Your task to perform on an android device: turn off notifications in google photos Image 0: 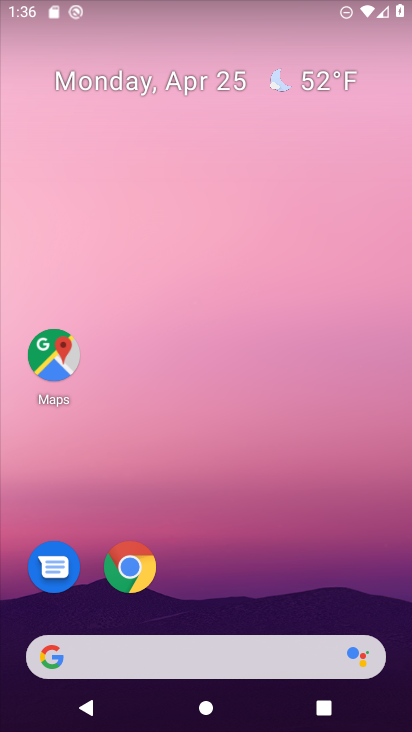
Step 0: drag from (291, 593) to (245, 39)
Your task to perform on an android device: turn off notifications in google photos Image 1: 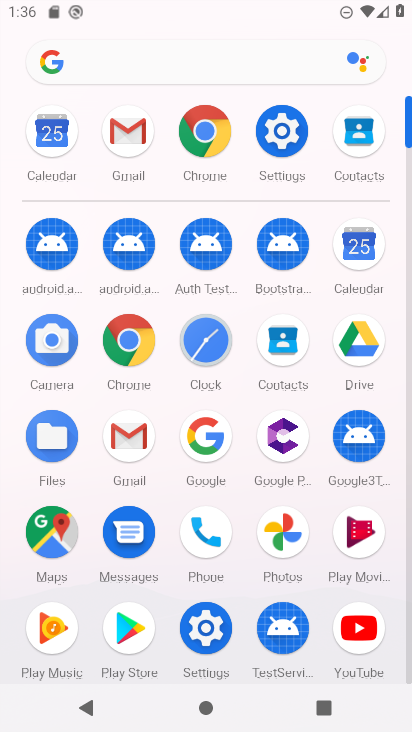
Step 1: click (280, 126)
Your task to perform on an android device: turn off notifications in google photos Image 2: 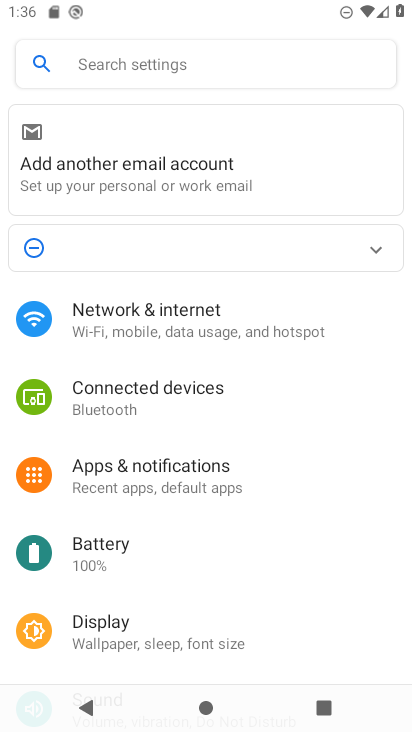
Step 2: click (204, 463)
Your task to perform on an android device: turn off notifications in google photos Image 3: 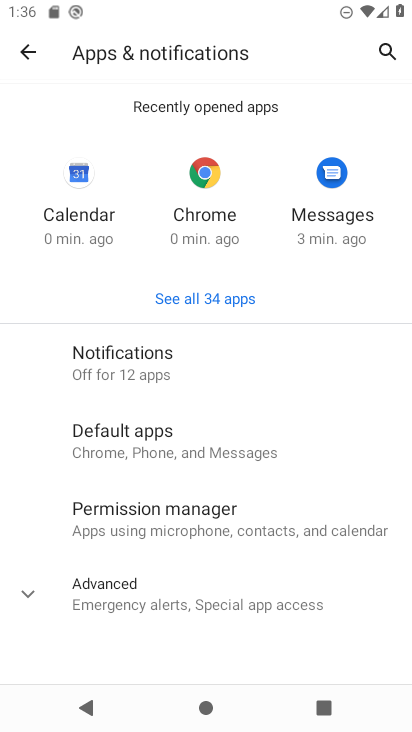
Step 3: click (222, 284)
Your task to perform on an android device: turn off notifications in google photos Image 4: 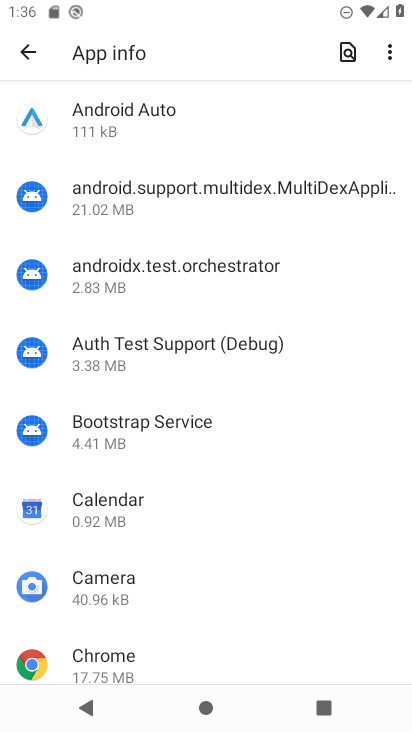
Step 4: drag from (255, 622) to (248, 36)
Your task to perform on an android device: turn off notifications in google photos Image 5: 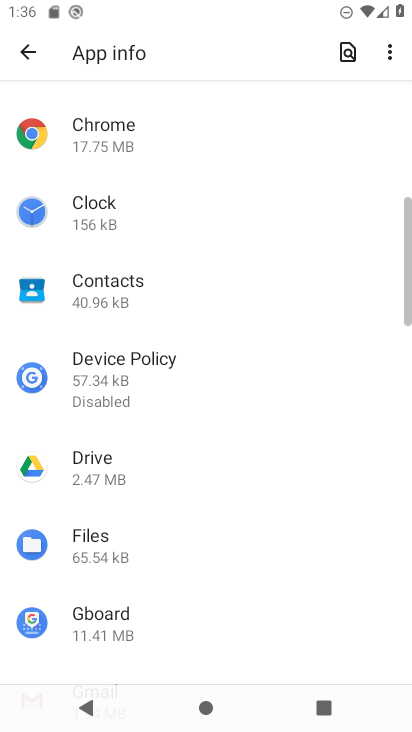
Step 5: drag from (221, 582) to (226, 156)
Your task to perform on an android device: turn off notifications in google photos Image 6: 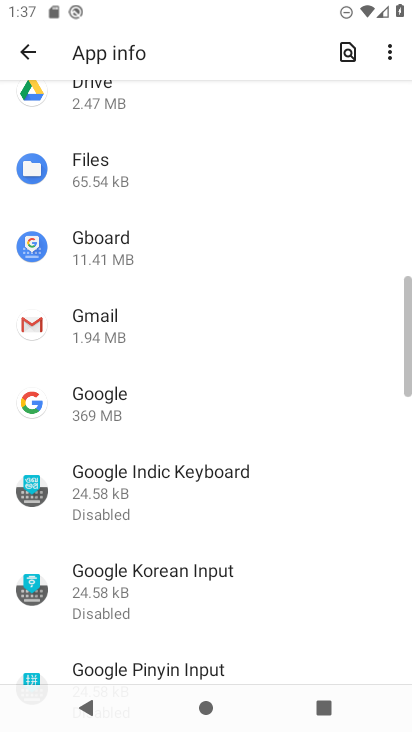
Step 6: drag from (224, 633) to (239, 83)
Your task to perform on an android device: turn off notifications in google photos Image 7: 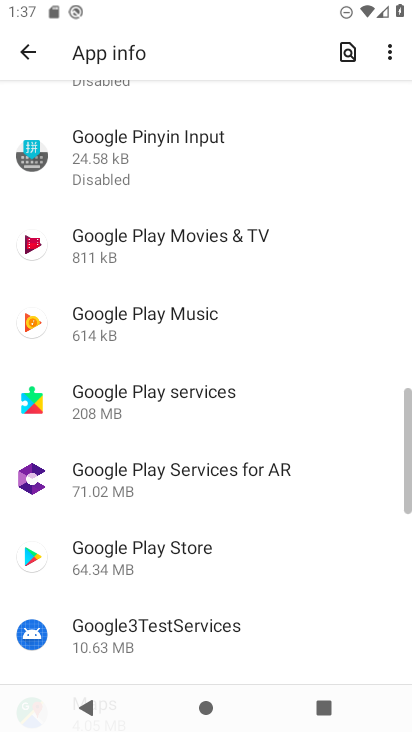
Step 7: drag from (273, 568) to (250, 63)
Your task to perform on an android device: turn off notifications in google photos Image 8: 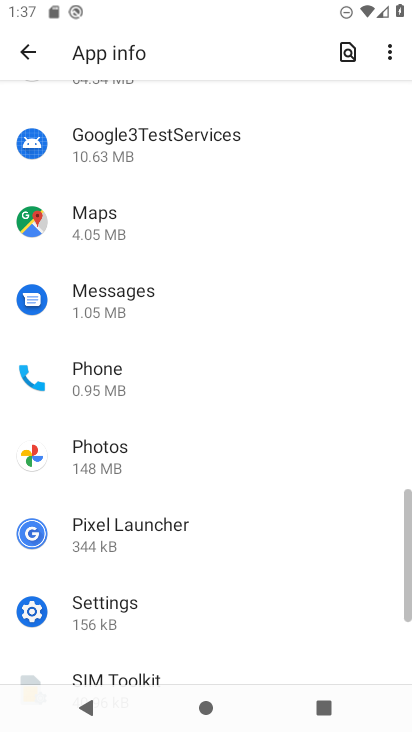
Step 8: click (164, 454)
Your task to perform on an android device: turn off notifications in google photos Image 9: 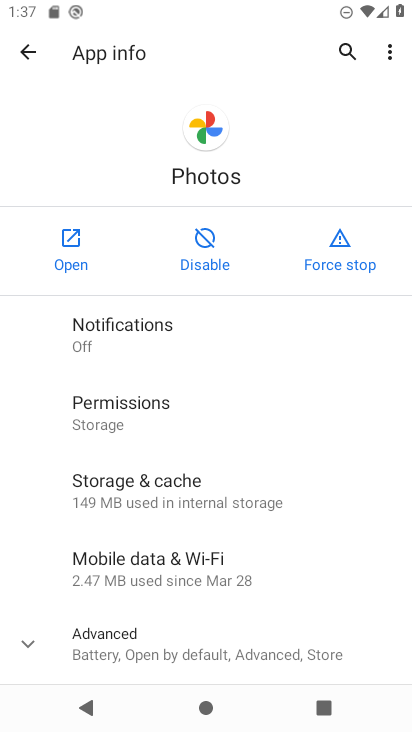
Step 9: click (152, 320)
Your task to perform on an android device: turn off notifications in google photos Image 10: 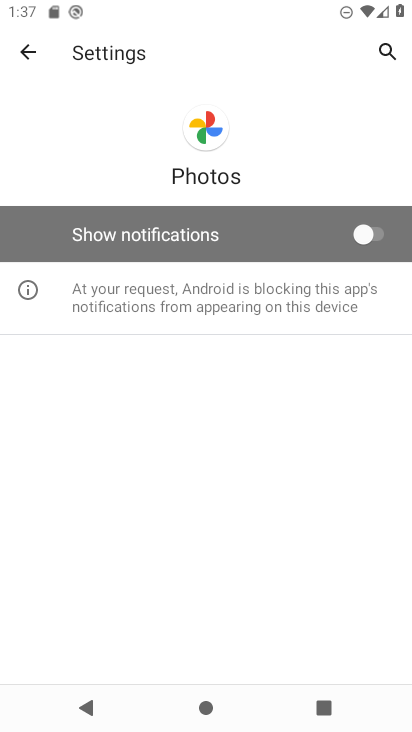
Step 10: task complete